Your task to perform on an android device: Go to Amazon Image 0: 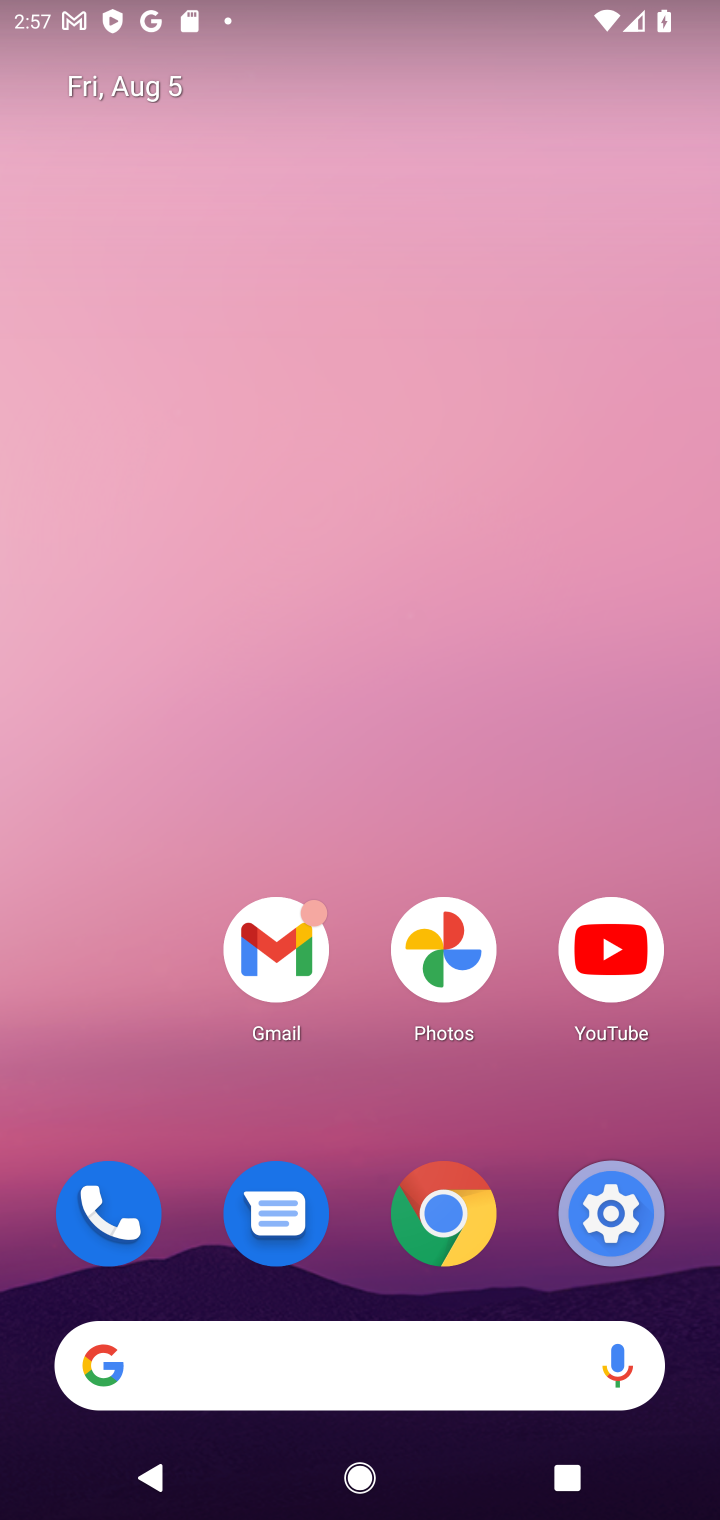
Step 0: click (451, 1210)
Your task to perform on an android device: Go to Amazon Image 1: 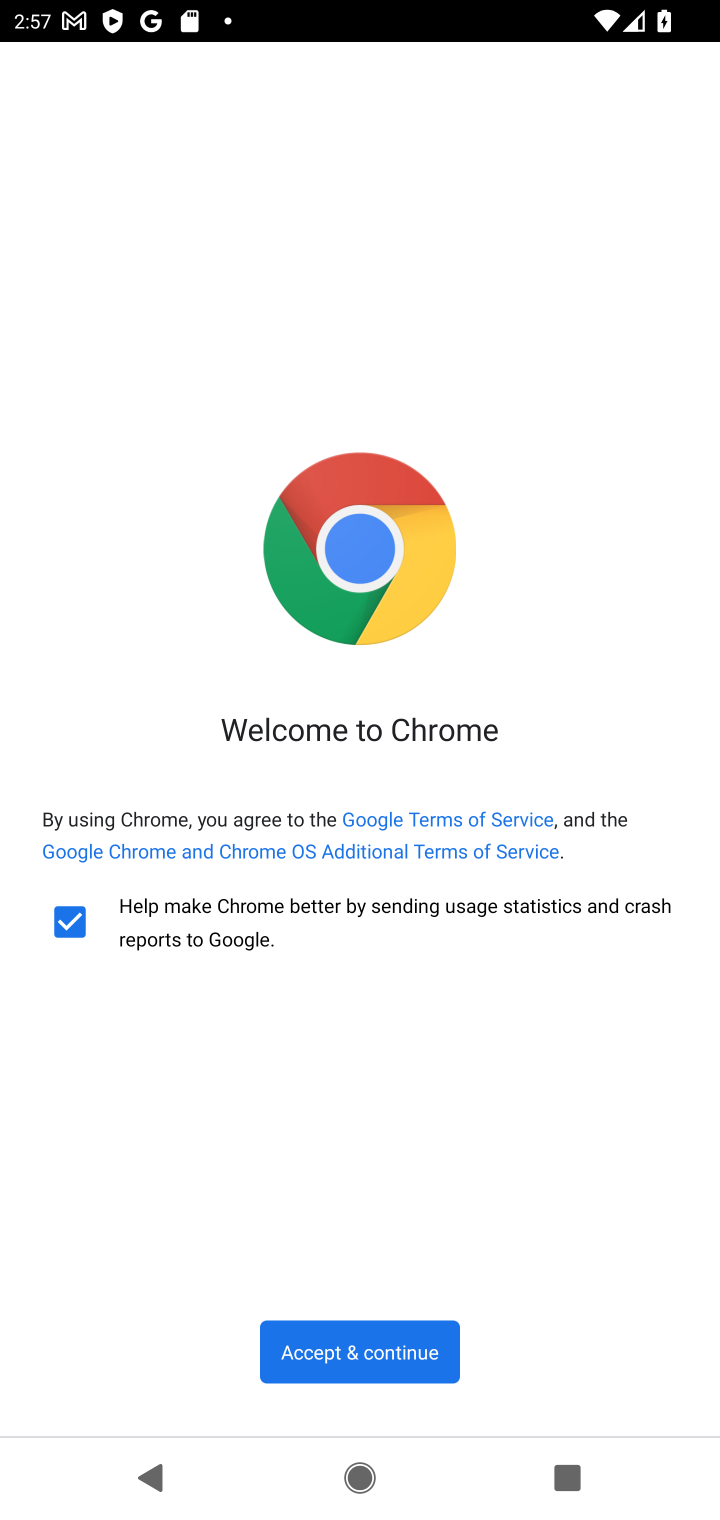
Step 1: click (360, 1338)
Your task to perform on an android device: Go to Amazon Image 2: 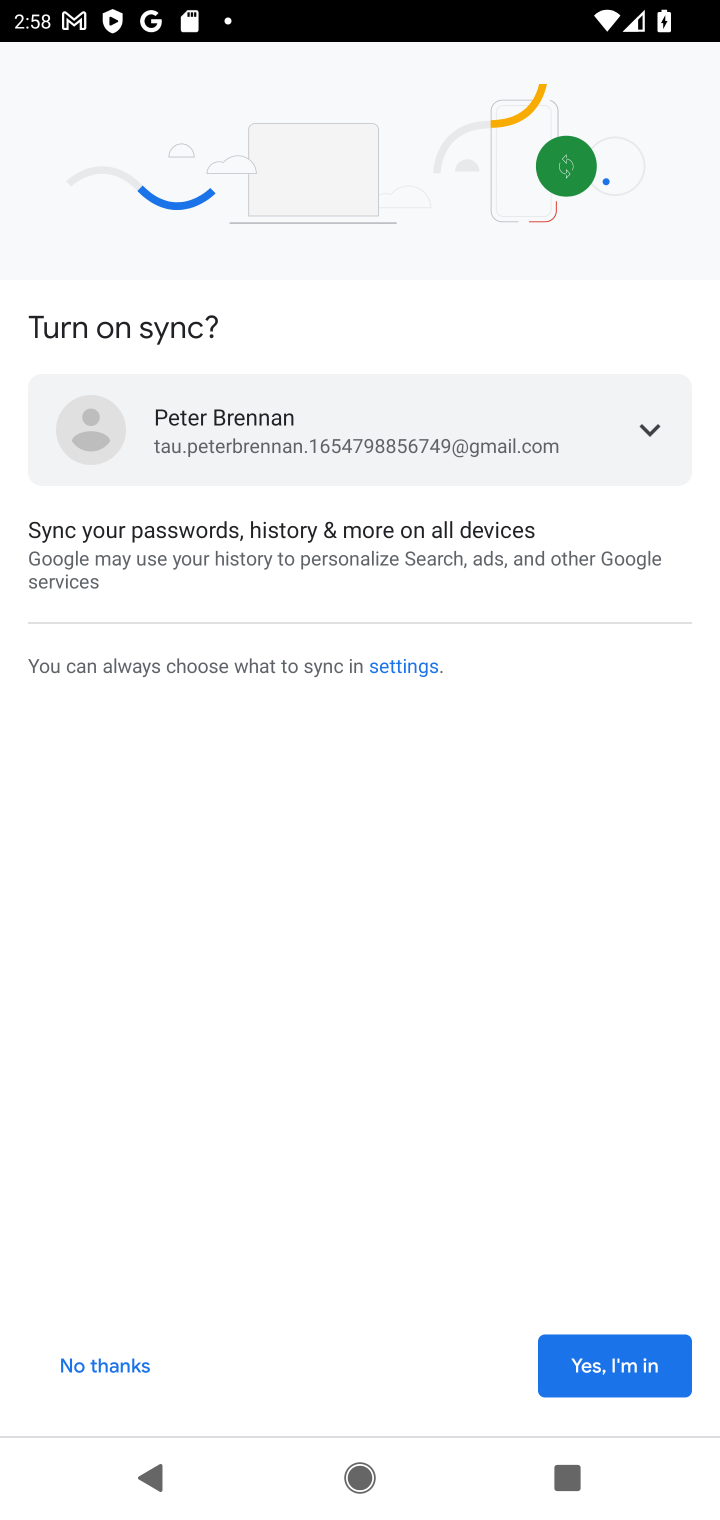
Step 2: click (588, 1386)
Your task to perform on an android device: Go to Amazon Image 3: 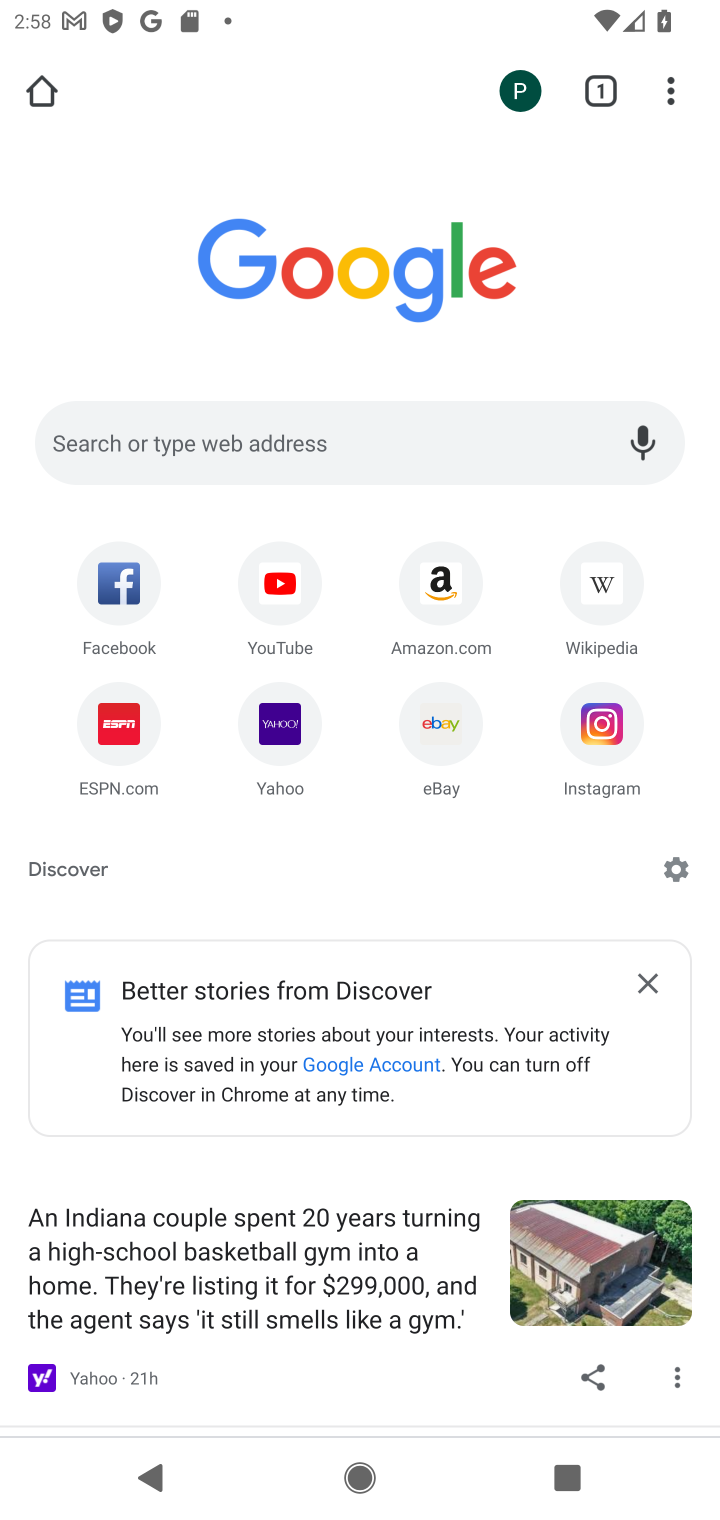
Step 3: click (417, 584)
Your task to perform on an android device: Go to Amazon Image 4: 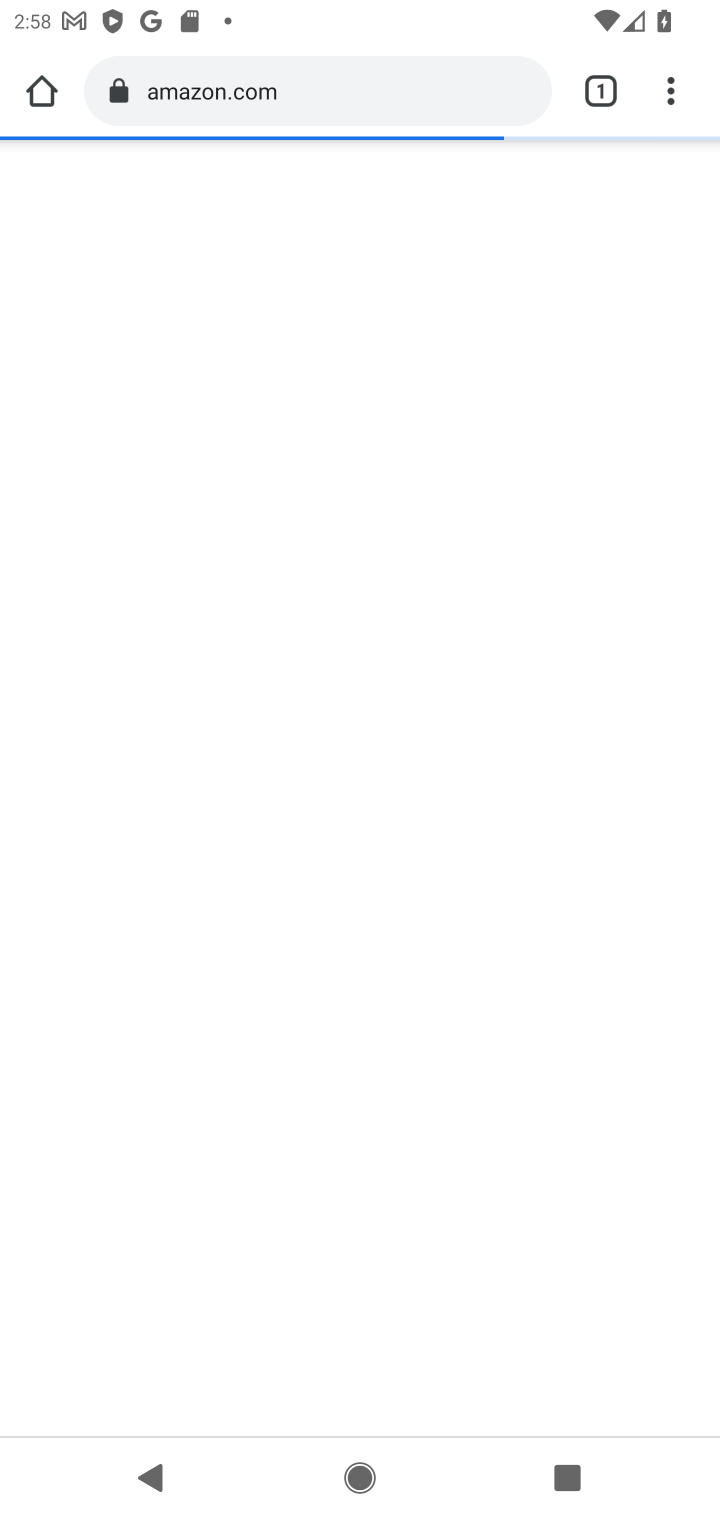
Step 4: task complete